Your task to perform on an android device: Go to sound settings Image 0: 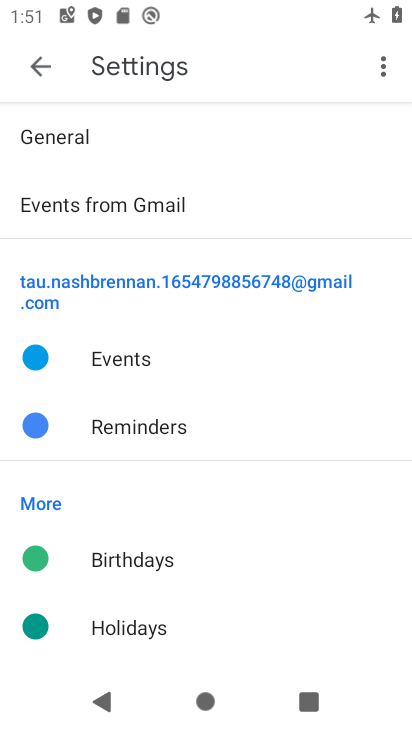
Step 0: press home button
Your task to perform on an android device: Go to sound settings Image 1: 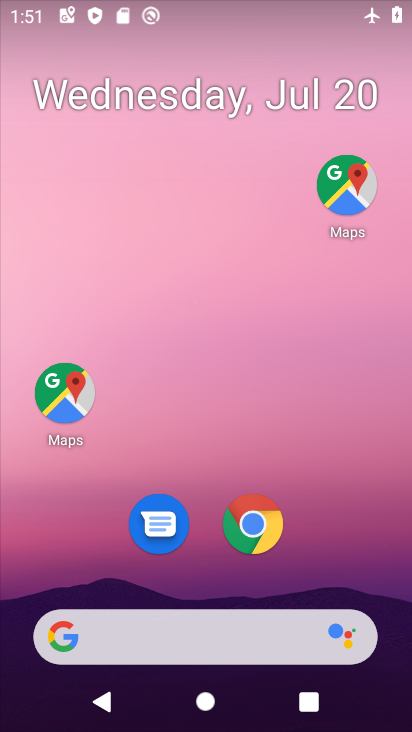
Step 1: drag from (360, 546) to (382, 71)
Your task to perform on an android device: Go to sound settings Image 2: 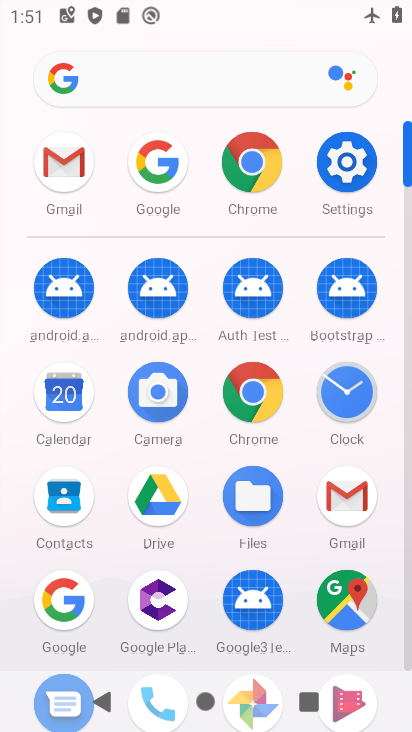
Step 2: click (352, 161)
Your task to perform on an android device: Go to sound settings Image 3: 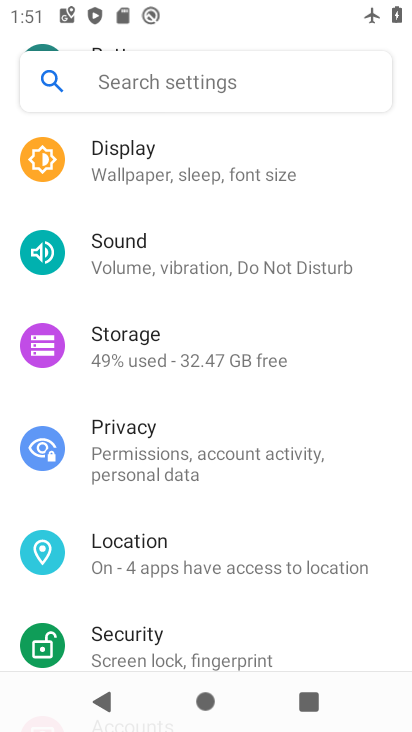
Step 3: click (219, 266)
Your task to perform on an android device: Go to sound settings Image 4: 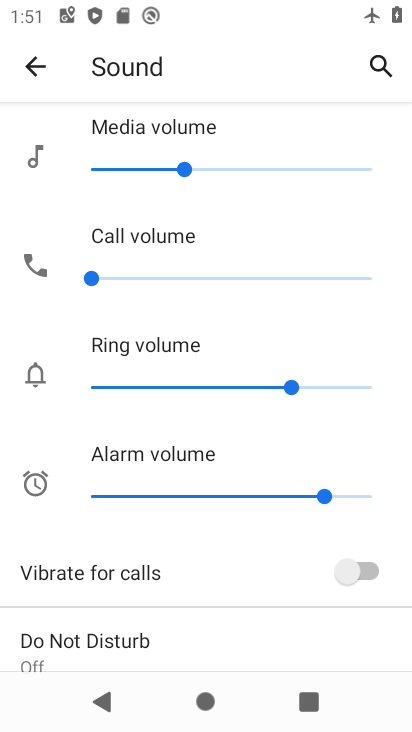
Step 4: task complete